Your task to perform on an android device: Go to sound settings Image 0: 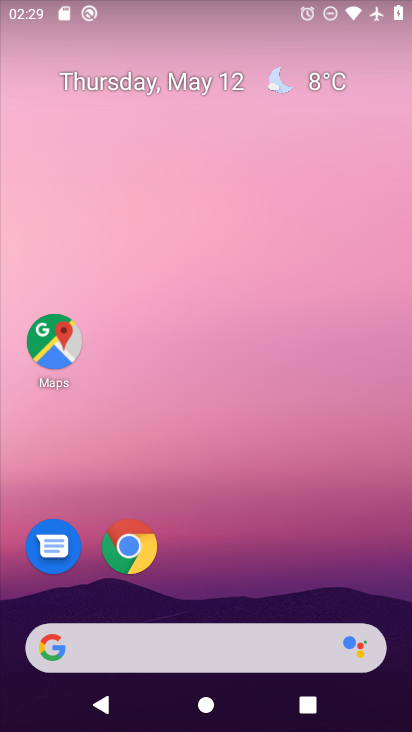
Step 0: press home button
Your task to perform on an android device: Go to sound settings Image 1: 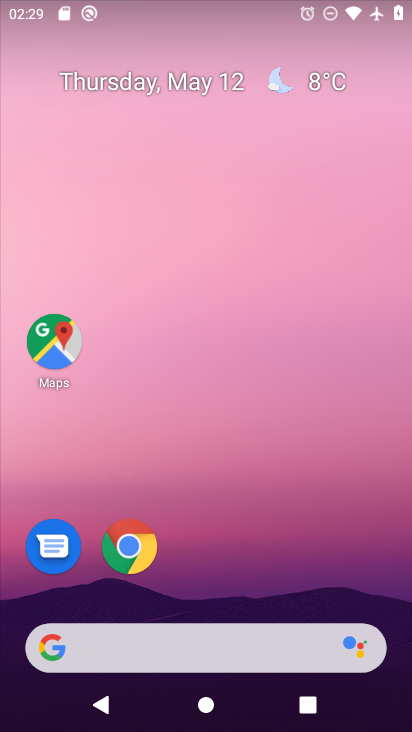
Step 1: drag from (152, 657) to (258, 170)
Your task to perform on an android device: Go to sound settings Image 2: 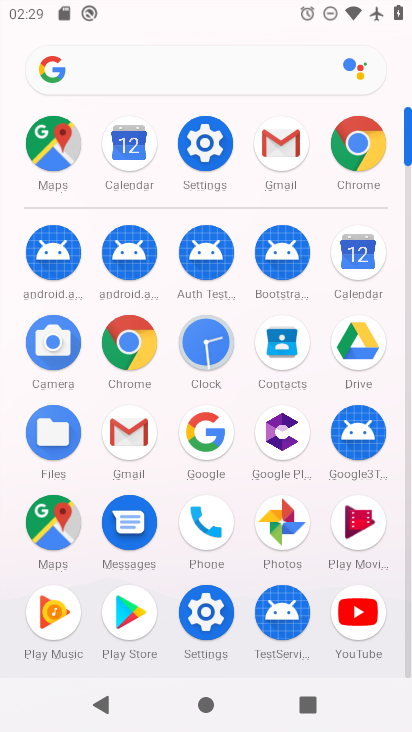
Step 2: click (193, 156)
Your task to perform on an android device: Go to sound settings Image 3: 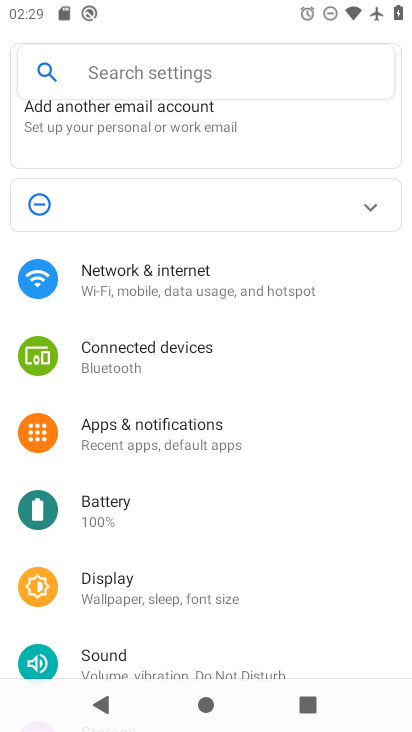
Step 3: drag from (202, 574) to (268, 302)
Your task to perform on an android device: Go to sound settings Image 4: 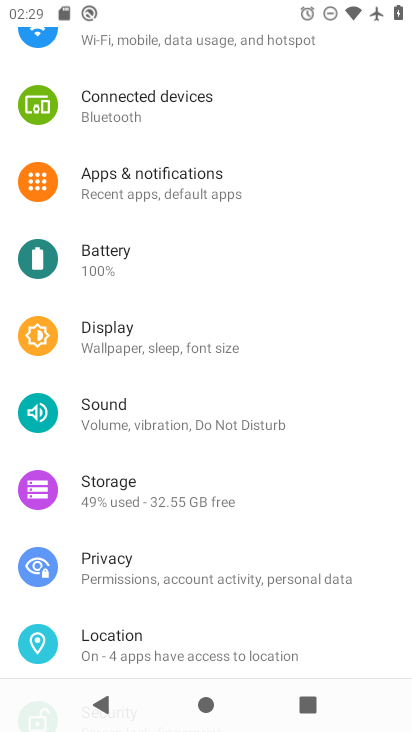
Step 4: click (124, 424)
Your task to perform on an android device: Go to sound settings Image 5: 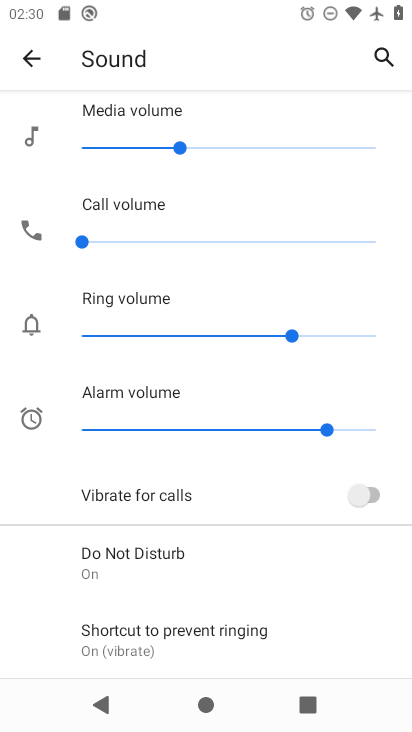
Step 5: task complete